Your task to perform on an android device: Open the stopwatch Image 0: 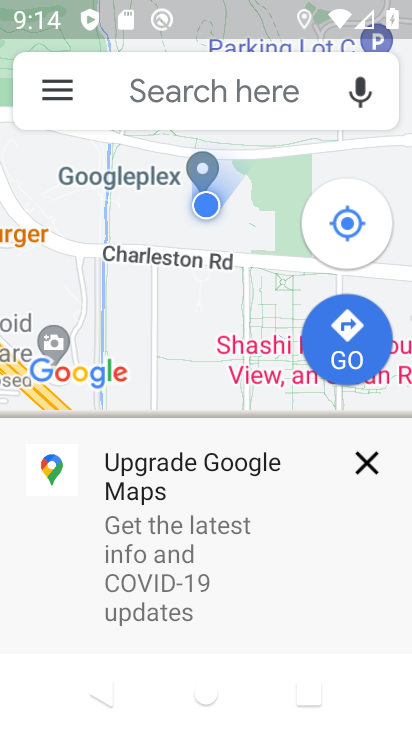
Step 0: press home button
Your task to perform on an android device: Open the stopwatch Image 1: 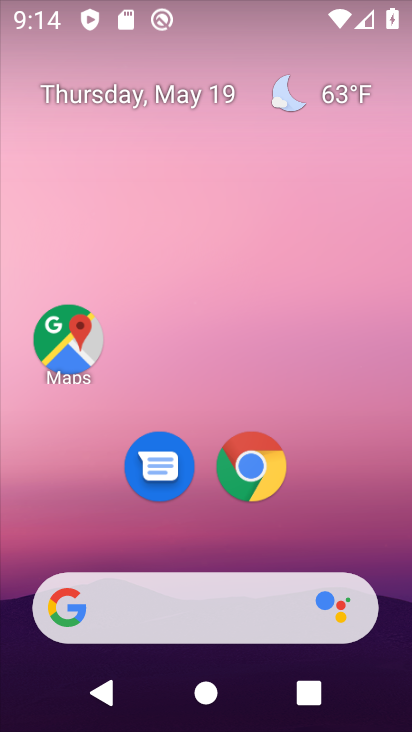
Step 1: drag from (396, 603) to (261, 69)
Your task to perform on an android device: Open the stopwatch Image 2: 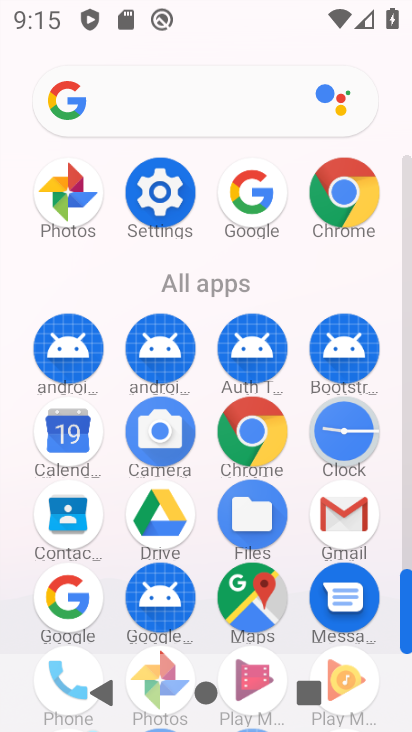
Step 2: click (367, 433)
Your task to perform on an android device: Open the stopwatch Image 3: 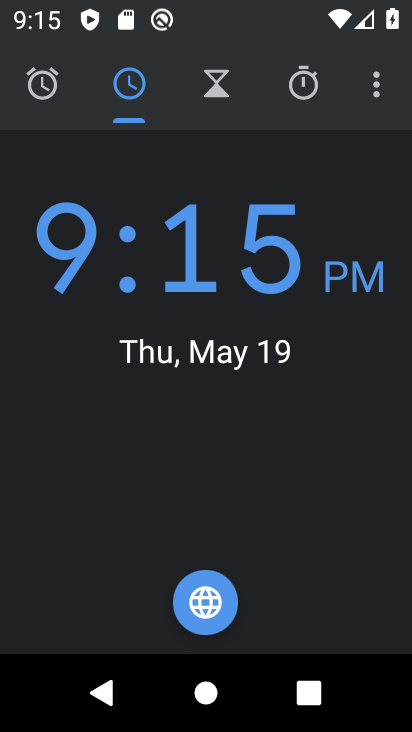
Step 3: click (298, 90)
Your task to perform on an android device: Open the stopwatch Image 4: 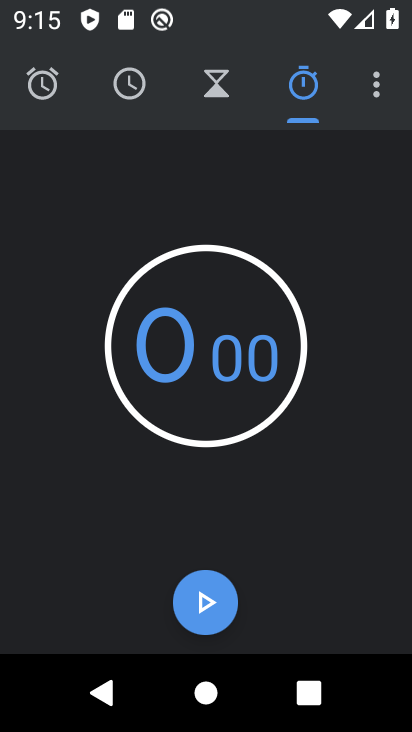
Step 4: task complete